Your task to perform on an android device: open a new tab in the chrome app Image 0: 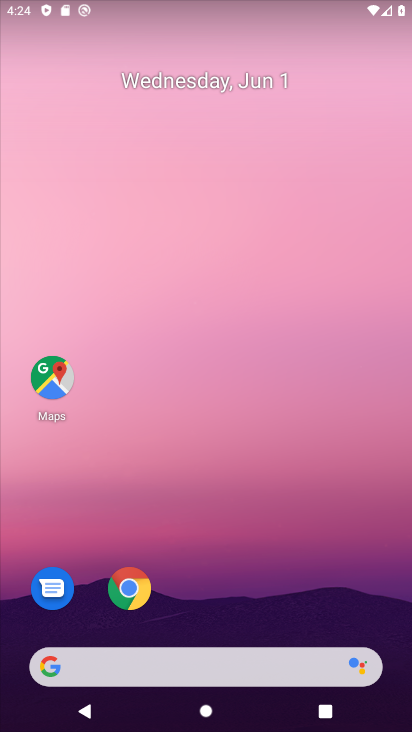
Step 0: click (131, 589)
Your task to perform on an android device: open a new tab in the chrome app Image 1: 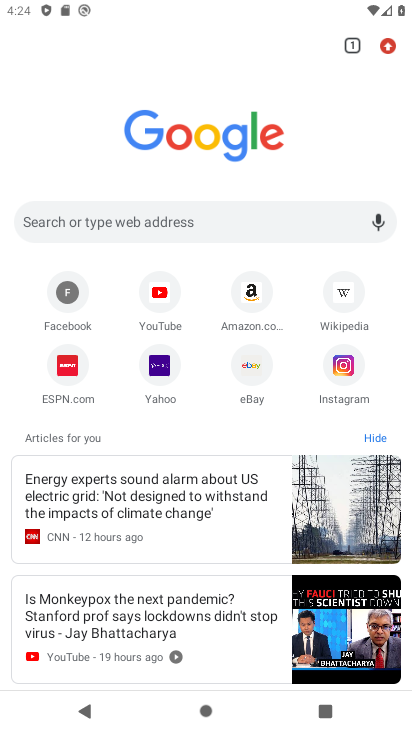
Step 1: click (389, 47)
Your task to perform on an android device: open a new tab in the chrome app Image 2: 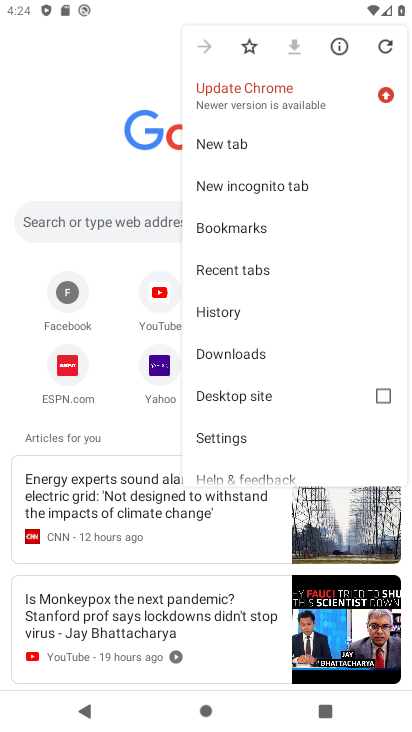
Step 2: click (239, 141)
Your task to perform on an android device: open a new tab in the chrome app Image 3: 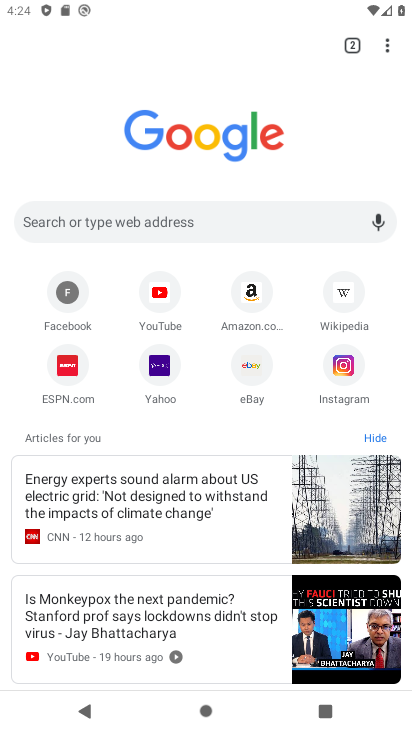
Step 3: task complete